Your task to perform on an android device: Open sound settings Image 0: 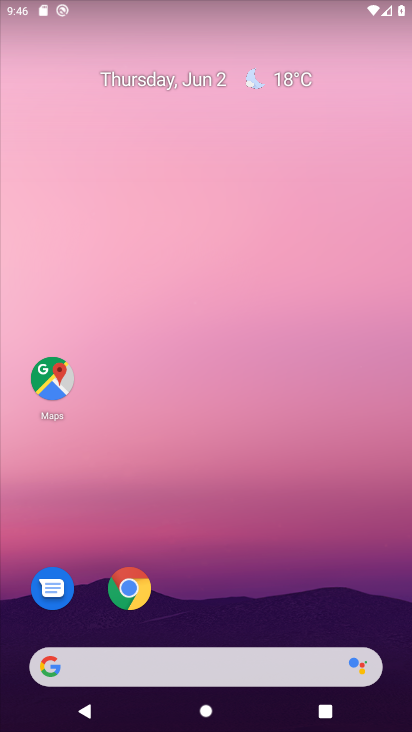
Step 0: drag from (234, 661) to (214, 99)
Your task to perform on an android device: Open sound settings Image 1: 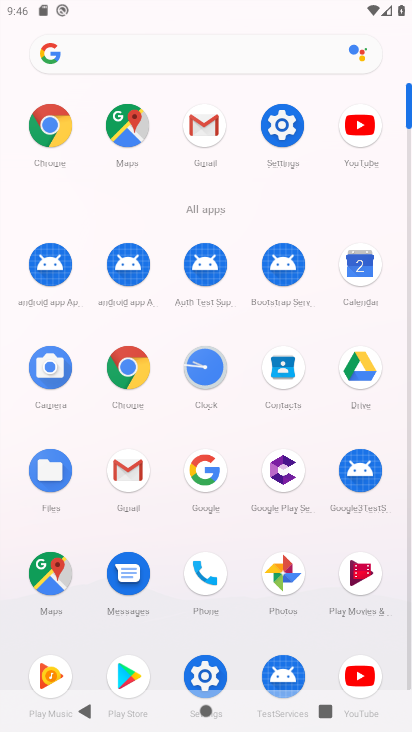
Step 1: click (280, 134)
Your task to perform on an android device: Open sound settings Image 2: 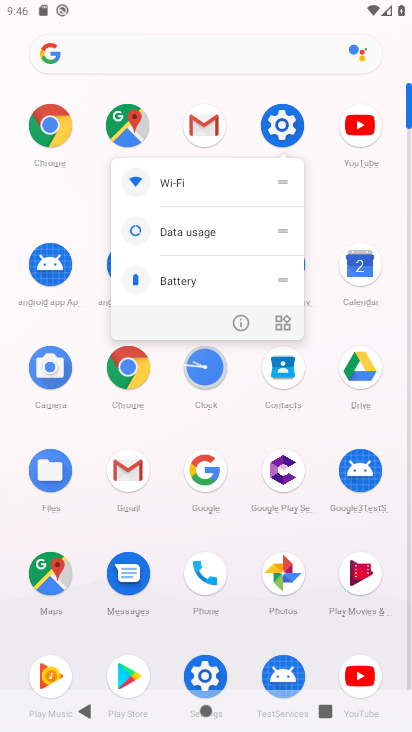
Step 2: click (267, 125)
Your task to perform on an android device: Open sound settings Image 3: 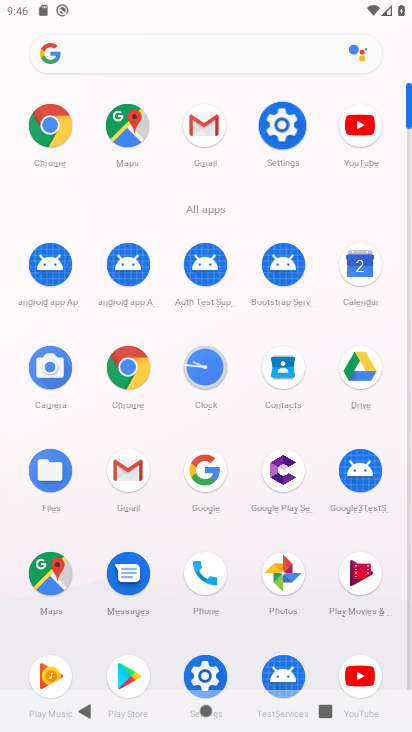
Step 3: click (274, 124)
Your task to perform on an android device: Open sound settings Image 4: 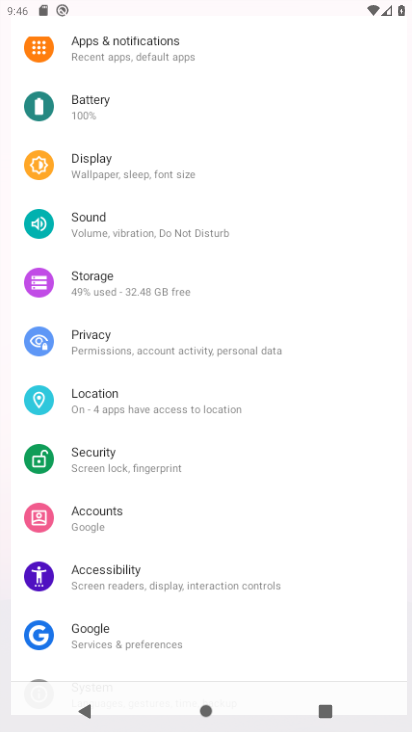
Step 4: click (274, 124)
Your task to perform on an android device: Open sound settings Image 5: 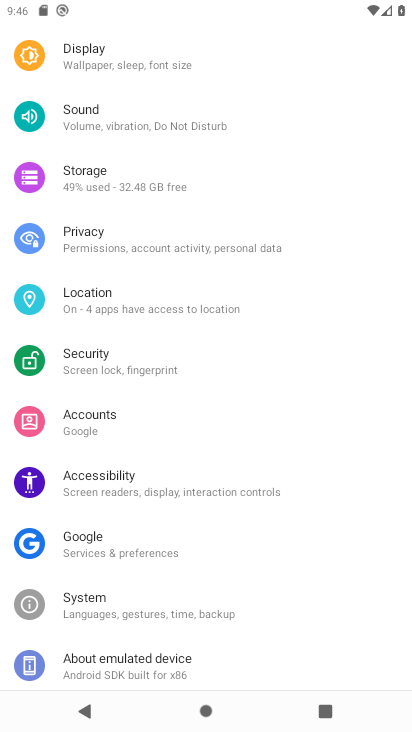
Step 5: click (275, 123)
Your task to perform on an android device: Open sound settings Image 6: 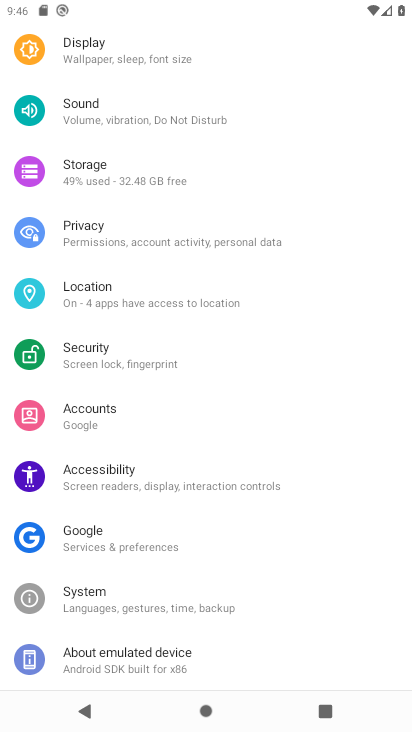
Step 6: click (274, 122)
Your task to perform on an android device: Open sound settings Image 7: 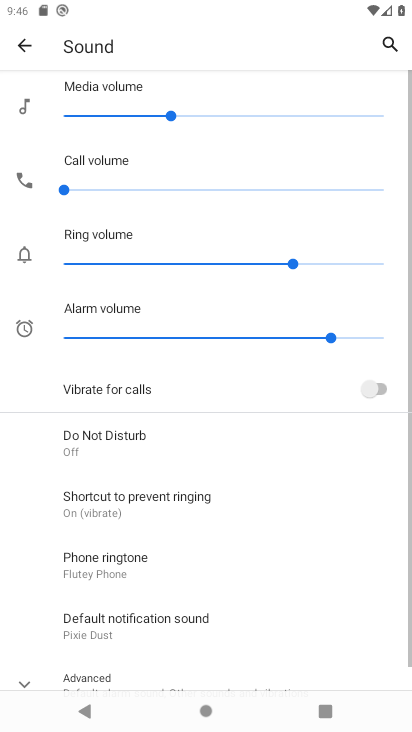
Step 7: task complete